Your task to perform on an android device: turn on wifi Image 0: 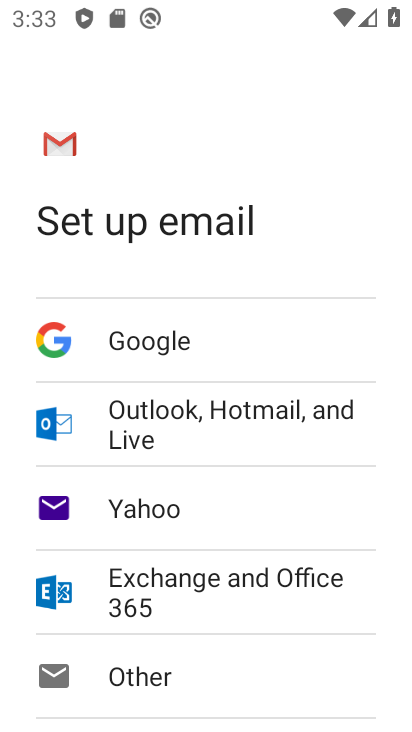
Step 0: press back button
Your task to perform on an android device: turn on wifi Image 1: 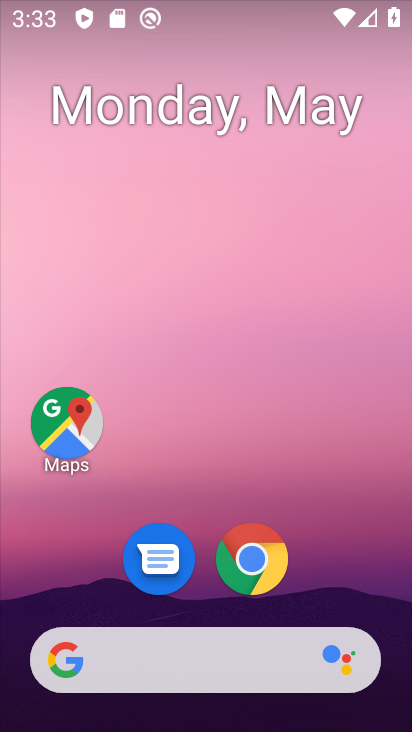
Step 1: drag from (277, 680) to (115, 32)
Your task to perform on an android device: turn on wifi Image 2: 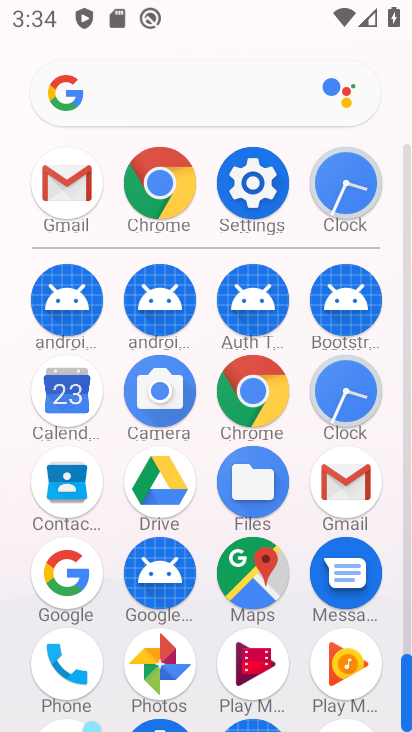
Step 2: click (249, 186)
Your task to perform on an android device: turn on wifi Image 3: 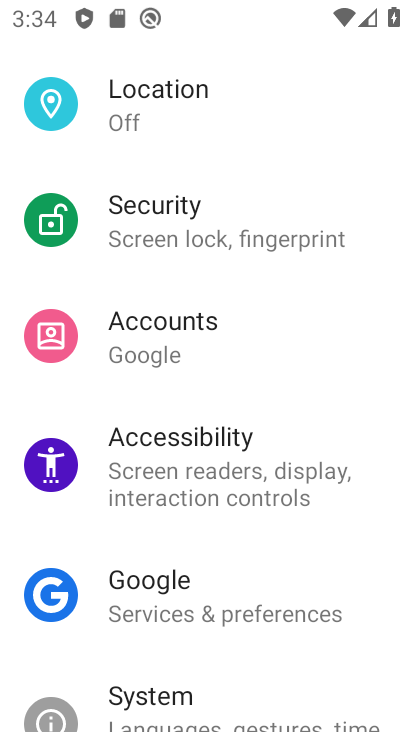
Step 3: drag from (198, 186) to (186, 583)
Your task to perform on an android device: turn on wifi Image 4: 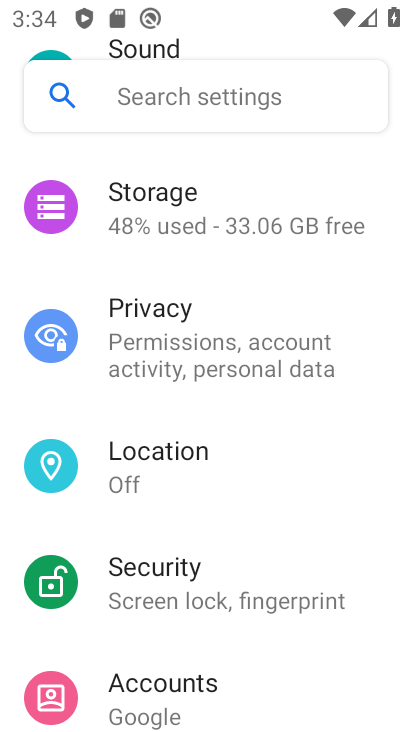
Step 4: drag from (133, 204) to (147, 574)
Your task to perform on an android device: turn on wifi Image 5: 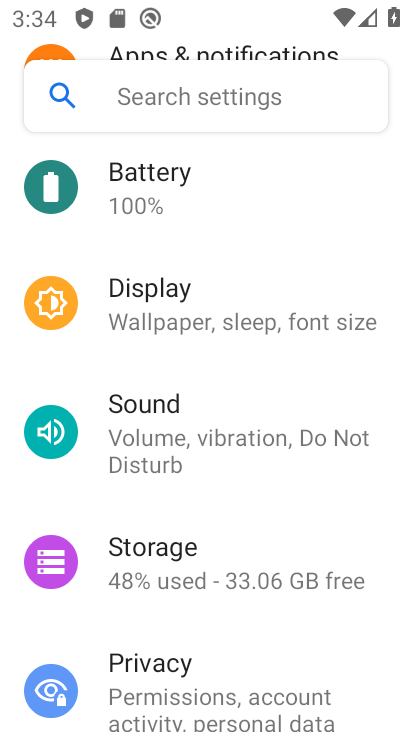
Step 5: drag from (144, 177) to (157, 580)
Your task to perform on an android device: turn on wifi Image 6: 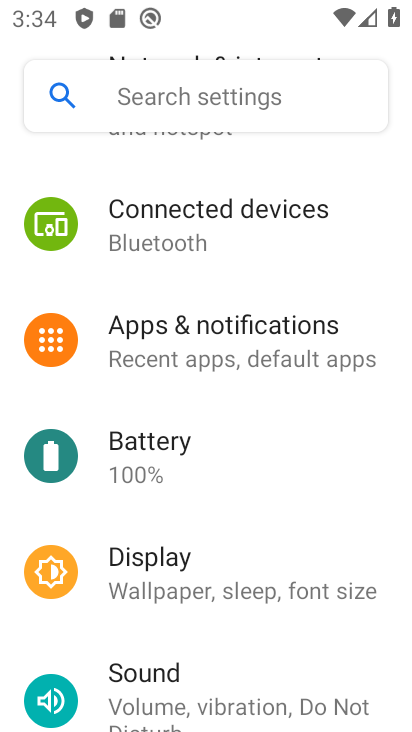
Step 6: drag from (169, 271) to (189, 478)
Your task to perform on an android device: turn on wifi Image 7: 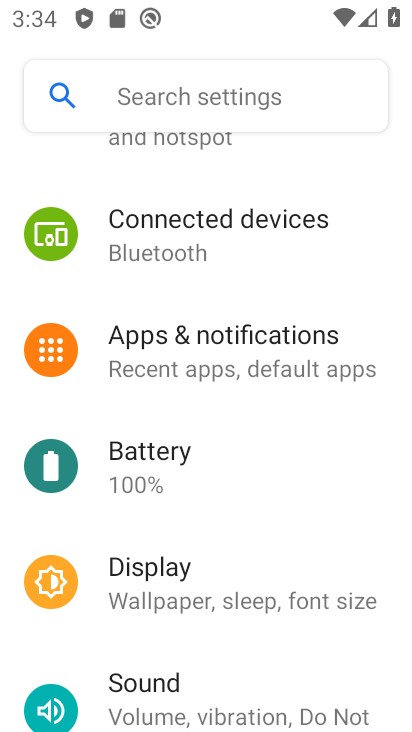
Step 7: drag from (160, 250) to (232, 489)
Your task to perform on an android device: turn on wifi Image 8: 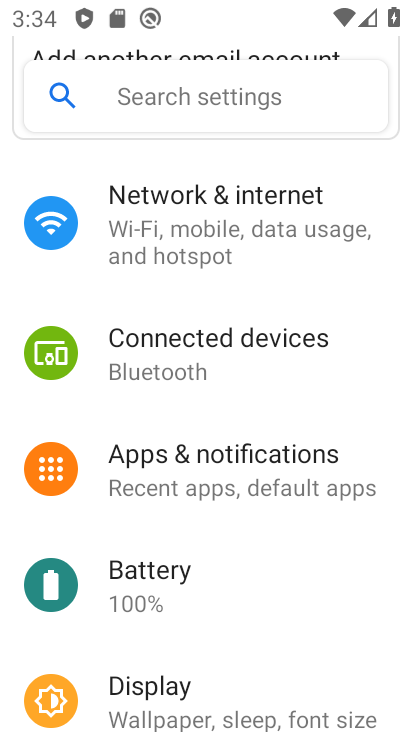
Step 8: drag from (204, 305) to (232, 692)
Your task to perform on an android device: turn on wifi Image 9: 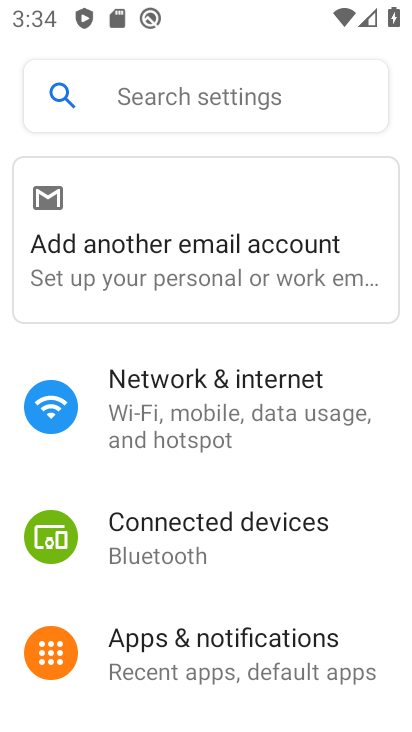
Step 9: drag from (192, 426) to (199, 640)
Your task to perform on an android device: turn on wifi Image 10: 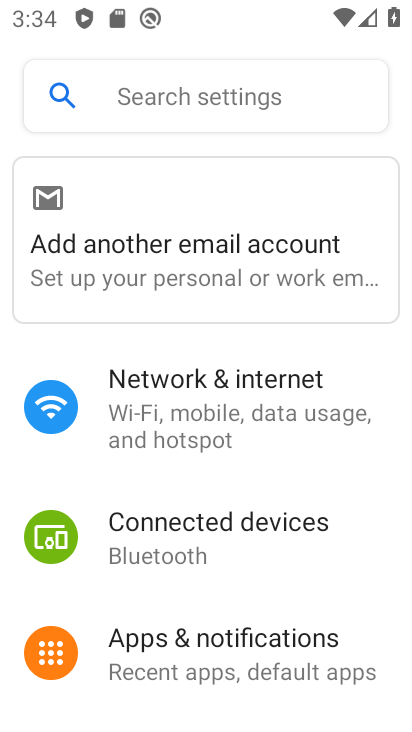
Step 10: drag from (193, 374) to (200, 694)
Your task to perform on an android device: turn on wifi Image 11: 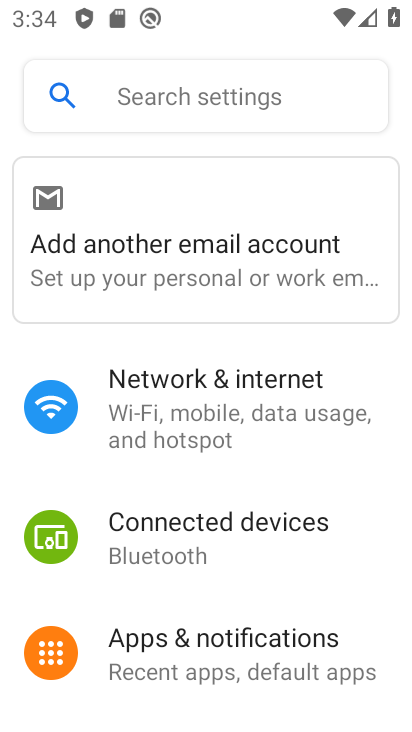
Step 11: drag from (161, 333) to (208, 642)
Your task to perform on an android device: turn on wifi Image 12: 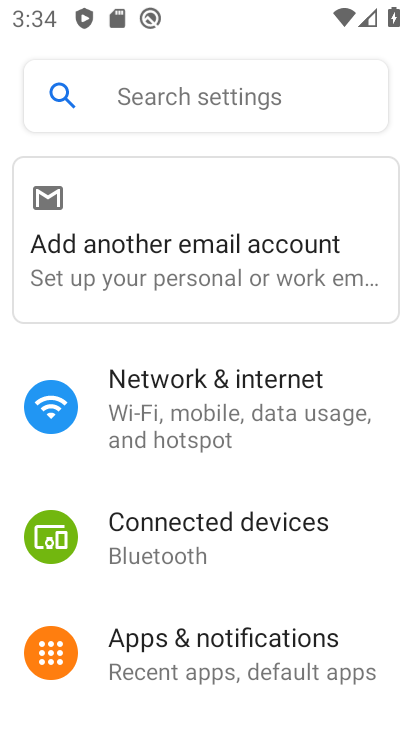
Step 12: click (179, 410)
Your task to perform on an android device: turn on wifi Image 13: 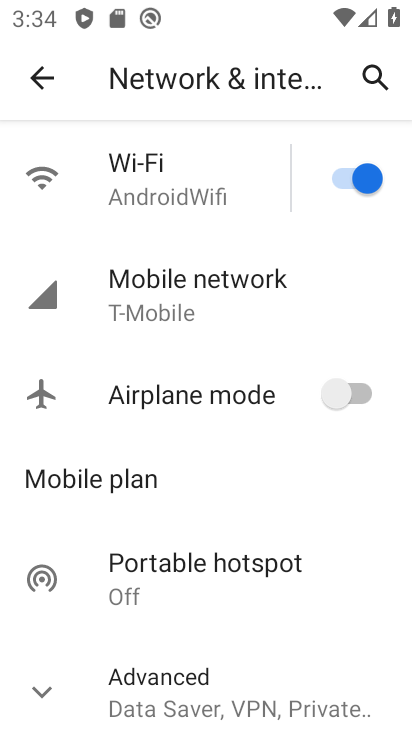
Step 13: task complete